Your task to perform on an android device: Open Youtube and go to "Your channel" Image 0: 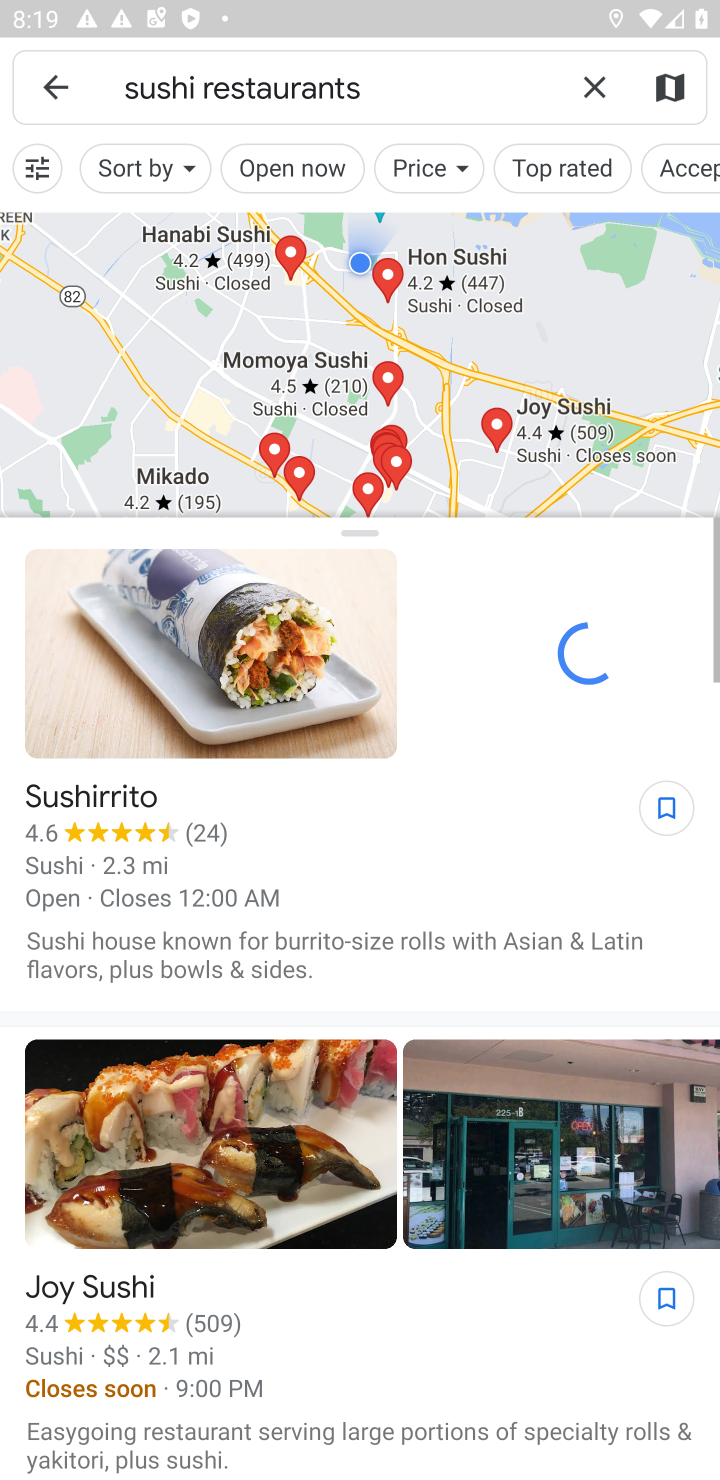
Step 0: press home button
Your task to perform on an android device: Open Youtube and go to "Your channel" Image 1: 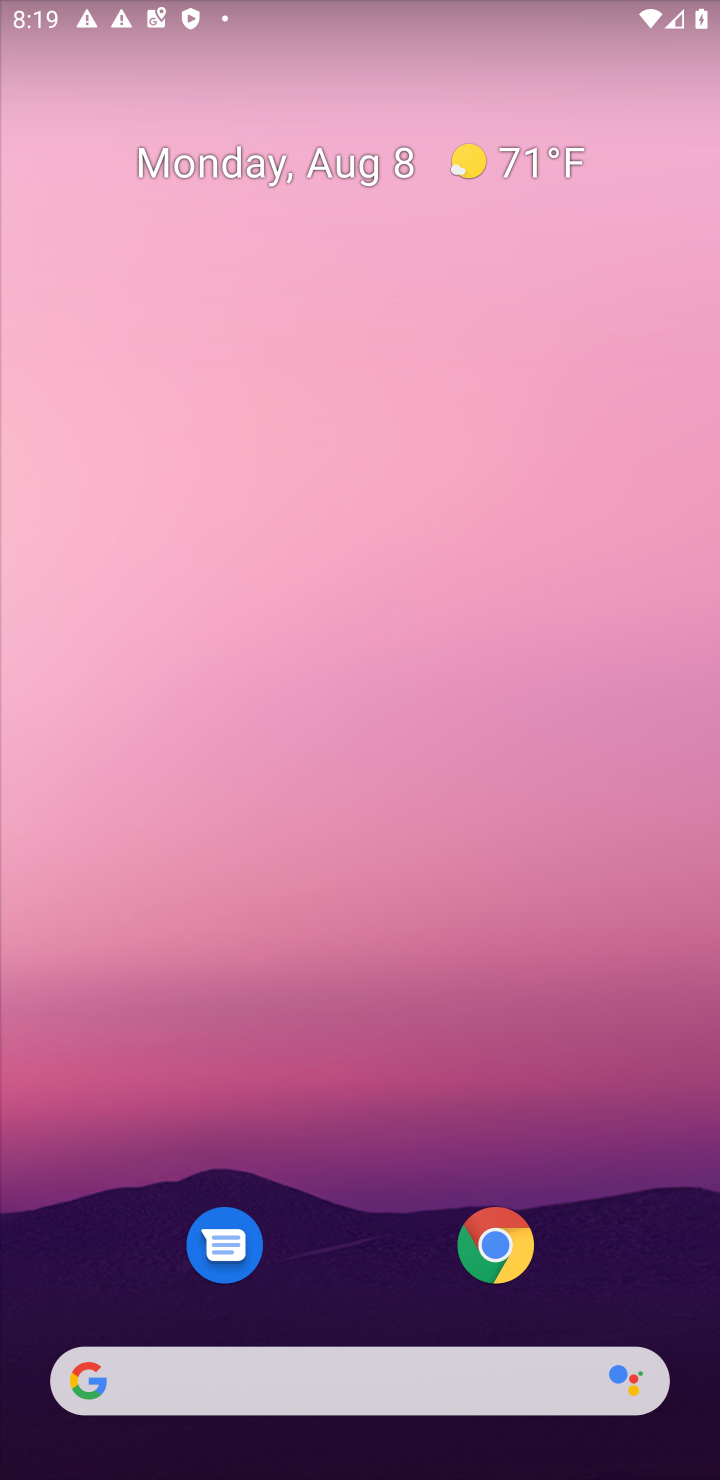
Step 1: drag from (346, 1277) to (337, 0)
Your task to perform on an android device: Open Youtube and go to "Your channel" Image 2: 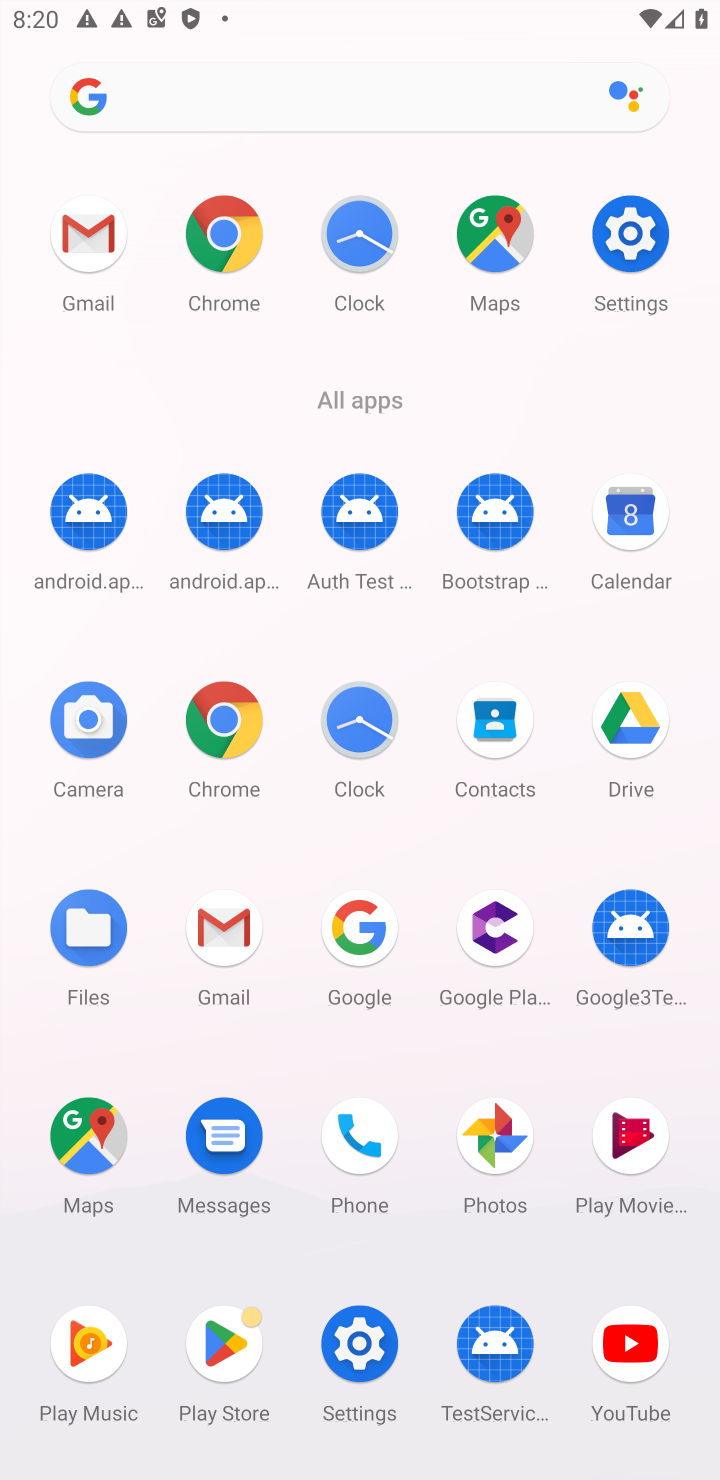
Step 2: click (643, 1337)
Your task to perform on an android device: Open Youtube and go to "Your channel" Image 3: 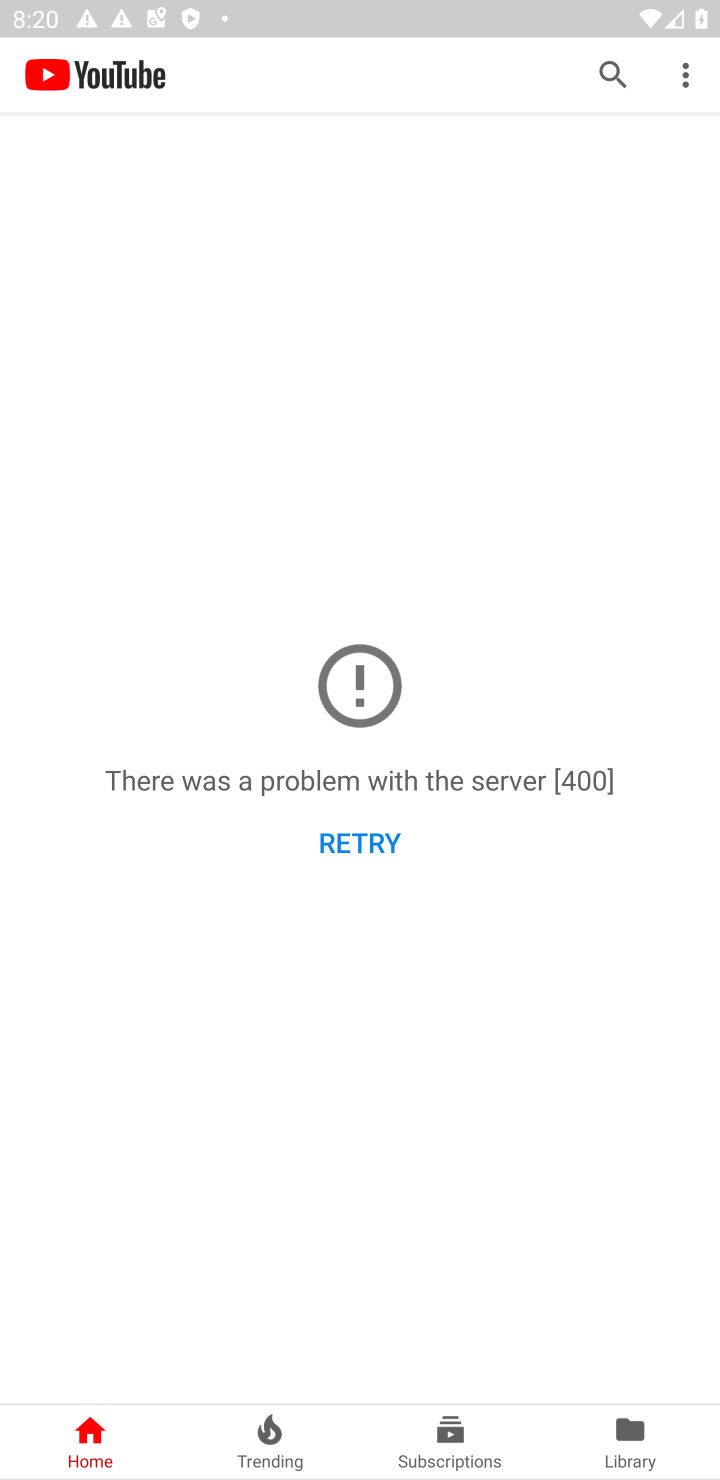
Step 3: click (347, 832)
Your task to perform on an android device: Open Youtube and go to "Your channel" Image 4: 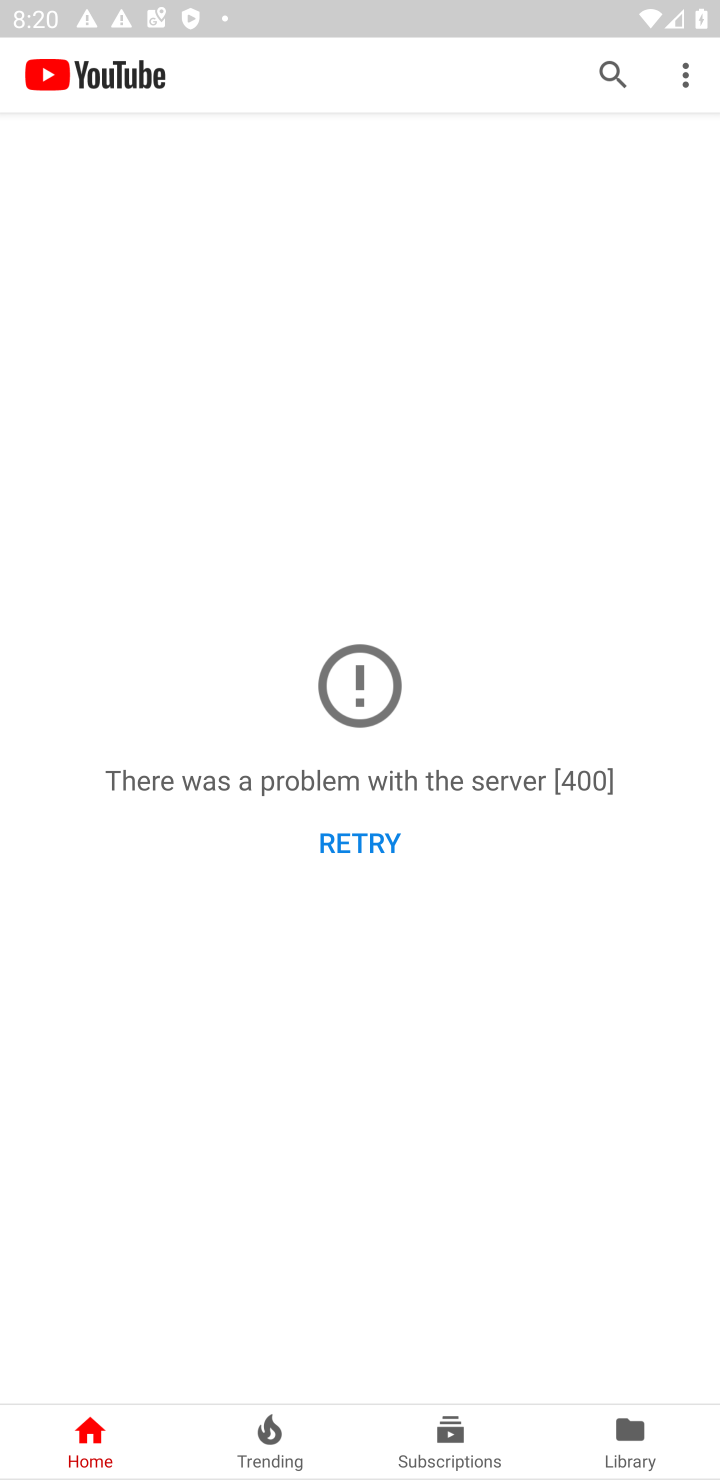
Step 4: click (349, 846)
Your task to perform on an android device: Open Youtube and go to "Your channel" Image 5: 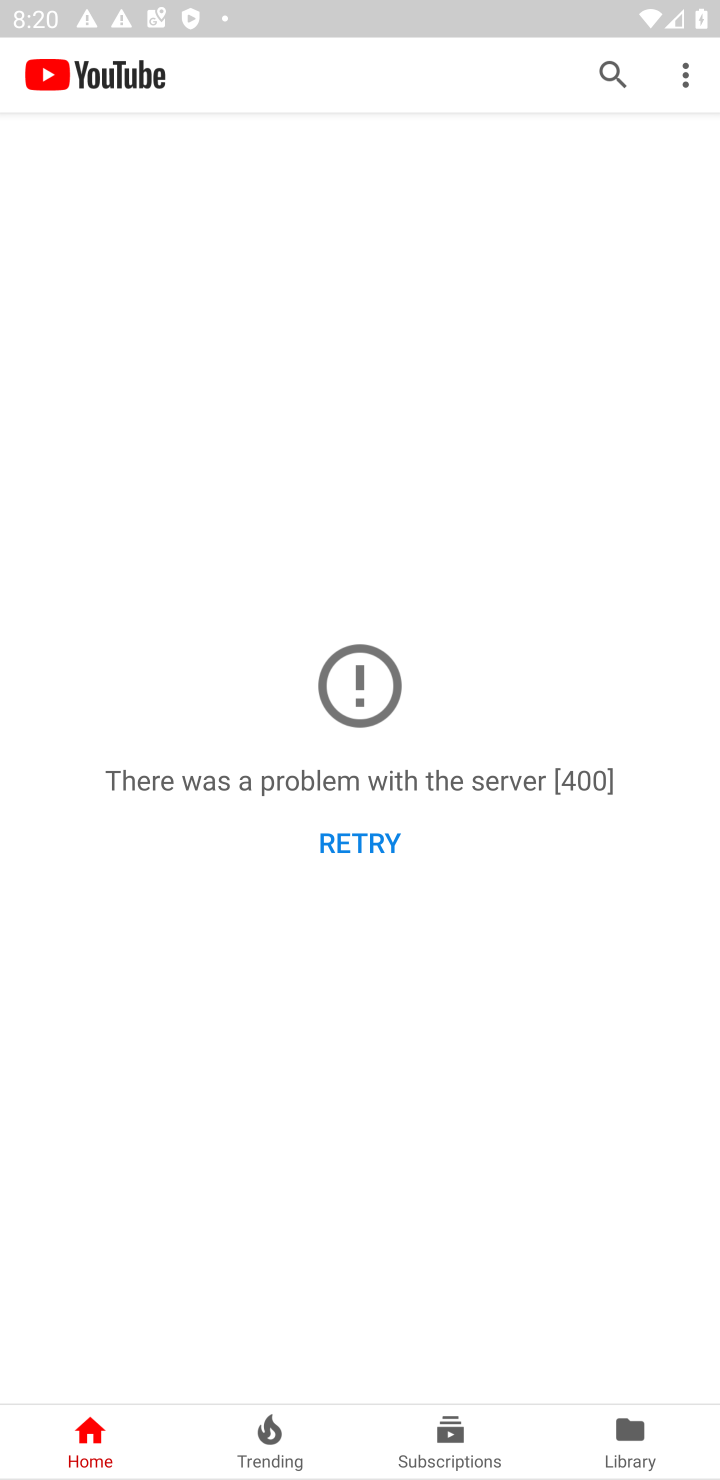
Step 5: task complete